Your task to perform on an android device: open device folders in google photos Image 0: 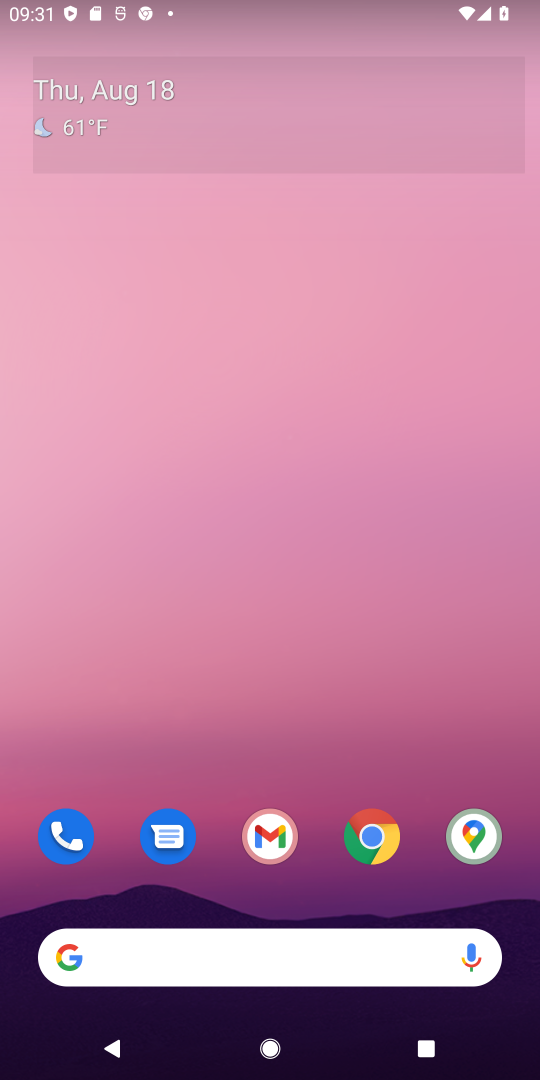
Step 0: drag from (318, 792) to (359, 31)
Your task to perform on an android device: open device folders in google photos Image 1: 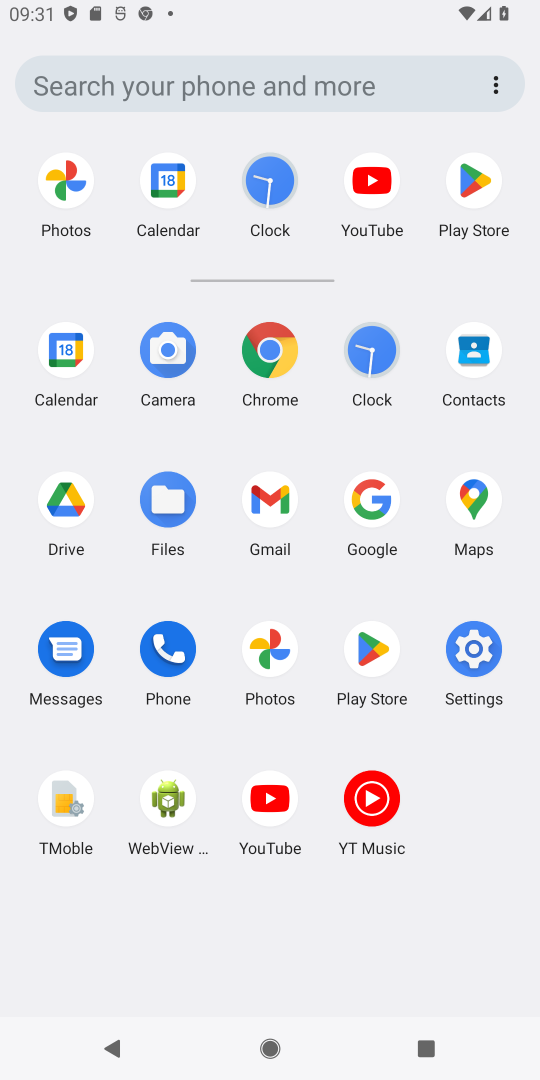
Step 1: click (275, 641)
Your task to perform on an android device: open device folders in google photos Image 2: 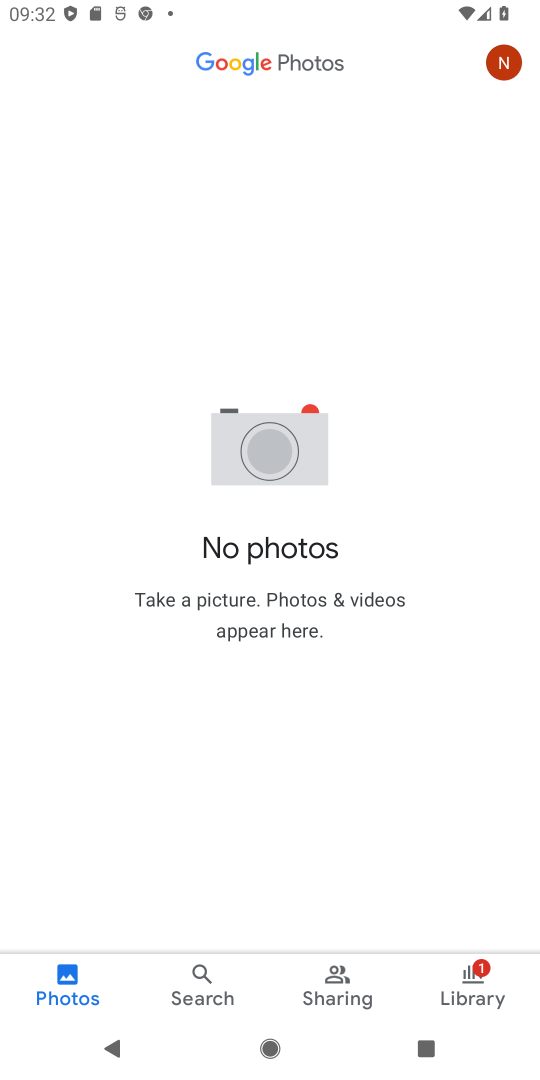
Step 2: click (493, 67)
Your task to perform on an android device: open device folders in google photos Image 3: 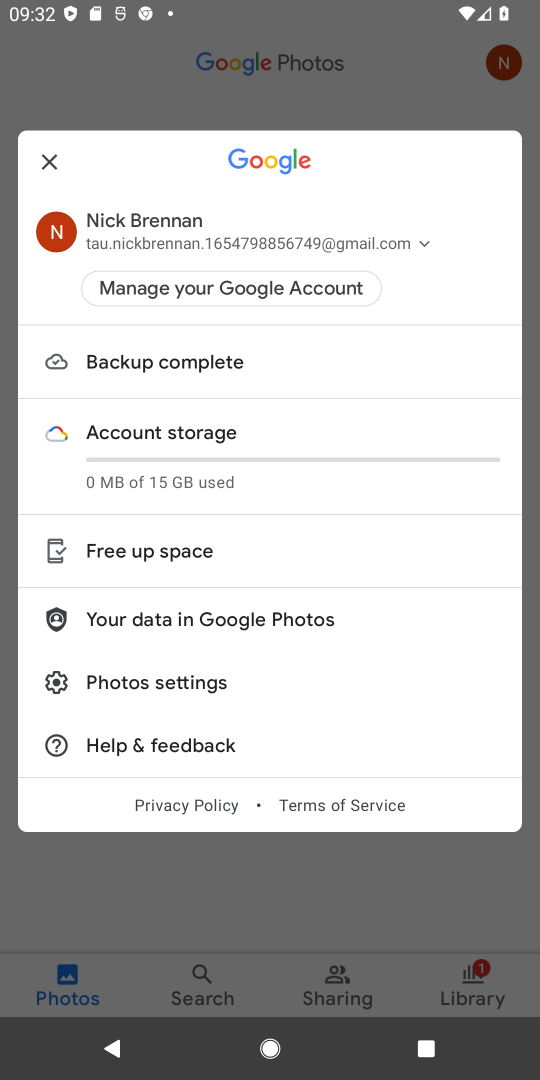
Step 3: click (217, 863)
Your task to perform on an android device: open device folders in google photos Image 4: 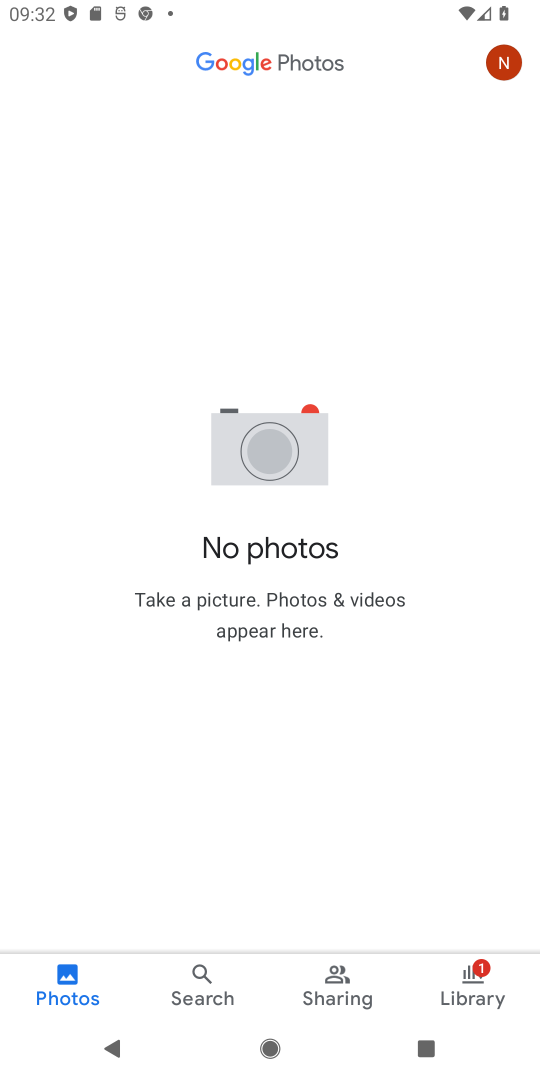
Step 4: click (481, 993)
Your task to perform on an android device: open device folders in google photos Image 5: 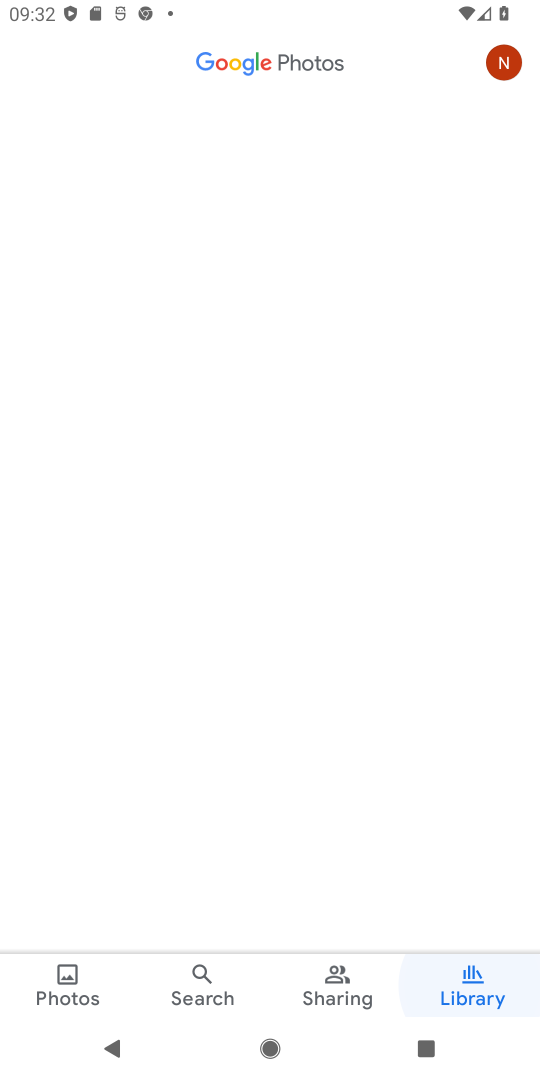
Step 5: click (481, 993)
Your task to perform on an android device: open device folders in google photos Image 6: 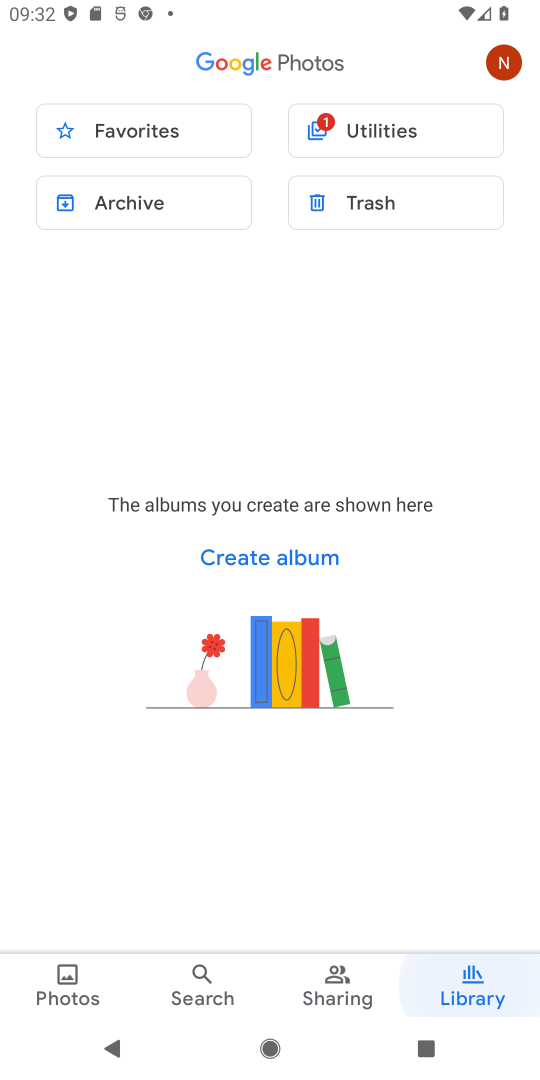
Step 6: click (481, 993)
Your task to perform on an android device: open device folders in google photos Image 7: 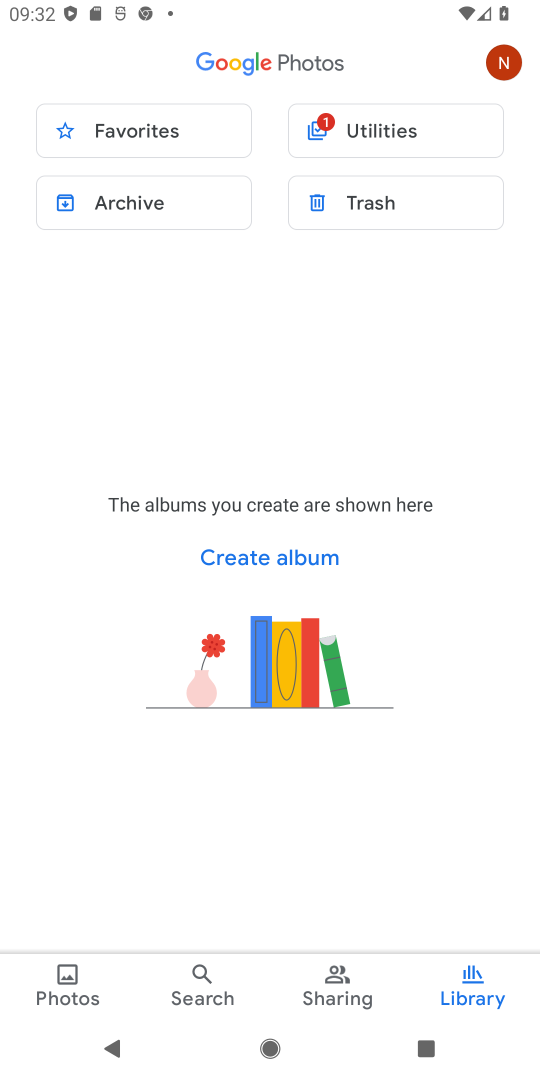
Step 7: click (407, 138)
Your task to perform on an android device: open device folders in google photos Image 8: 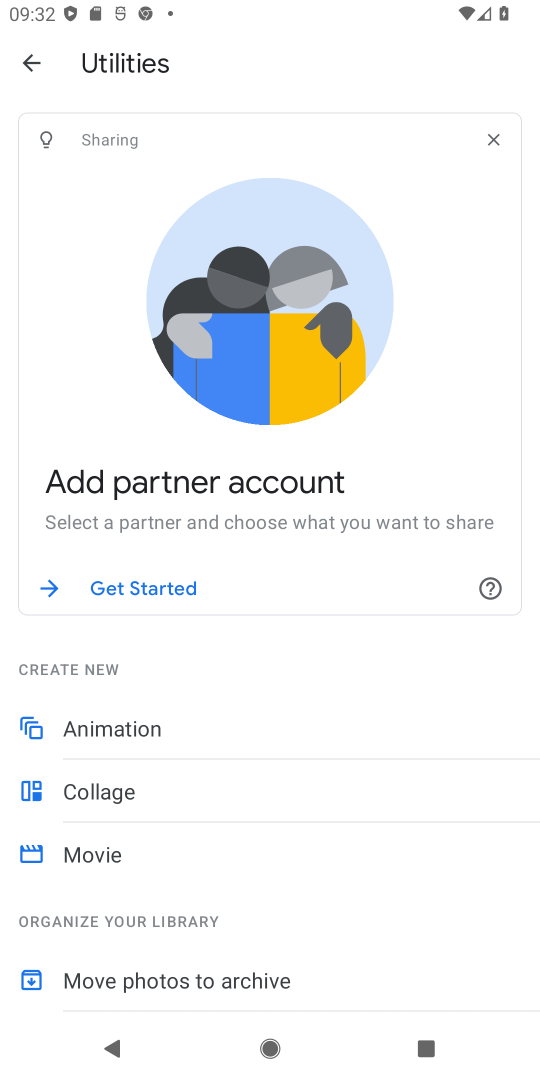
Step 8: drag from (291, 825) to (387, 83)
Your task to perform on an android device: open device folders in google photos Image 9: 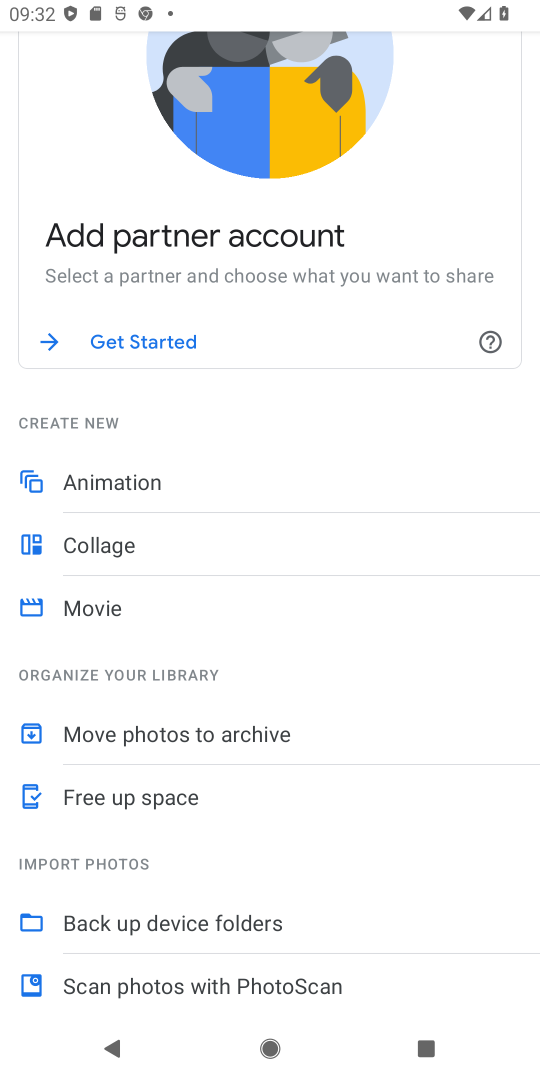
Step 9: click (267, 910)
Your task to perform on an android device: open device folders in google photos Image 10: 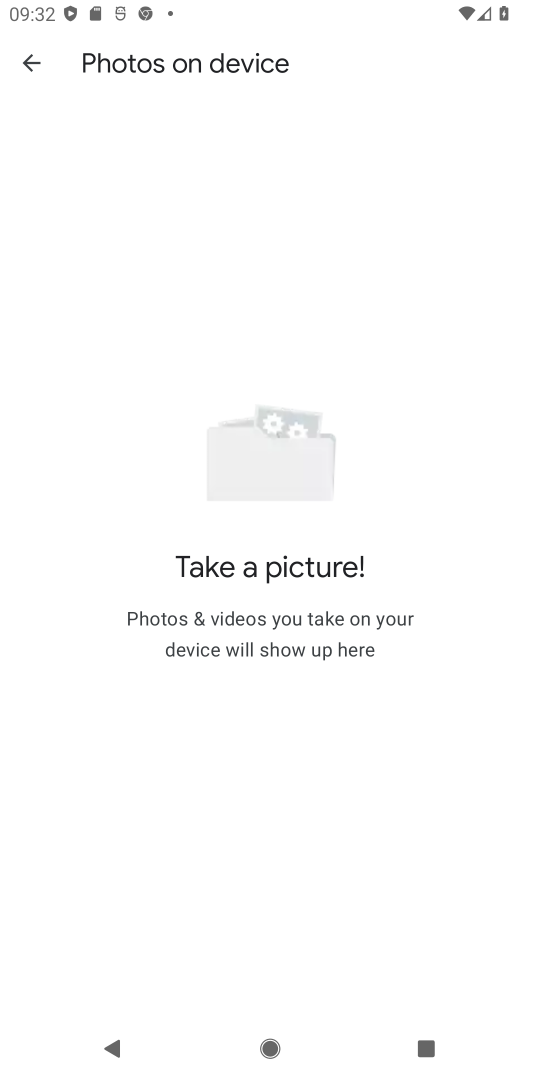
Step 10: task complete